Your task to perform on an android device: turn off notifications settings in the gmail app Image 0: 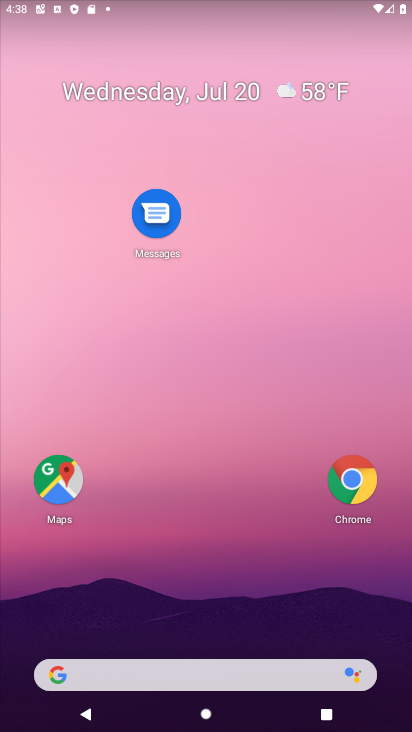
Step 0: drag from (186, 608) to (166, 208)
Your task to perform on an android device: turn off notifications settings in the gmail app Image 1: 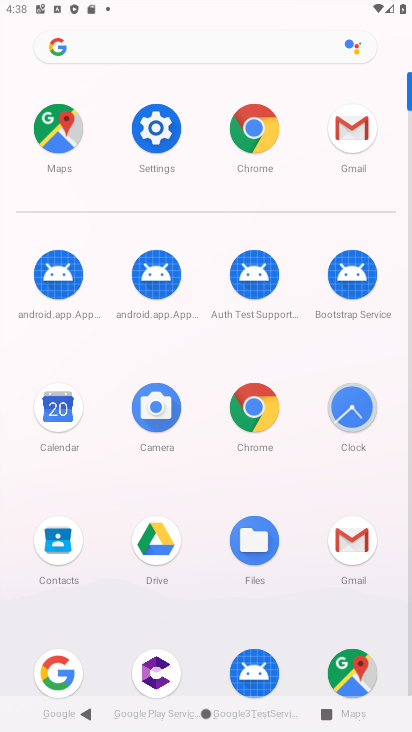
Step 1: click (352, 132)
Your task to perform on an android device: turn off notifications settings in the gmail app Image 2: 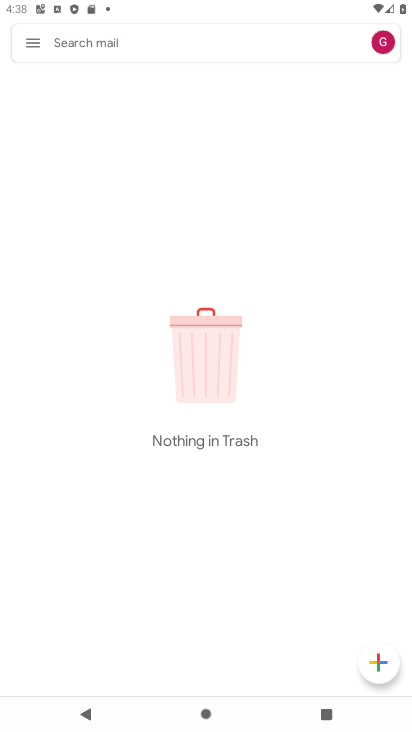
Step 2: click (34, 41)
Your task to perform on an android device: turn off notifications settings in the gmail app Image 3: 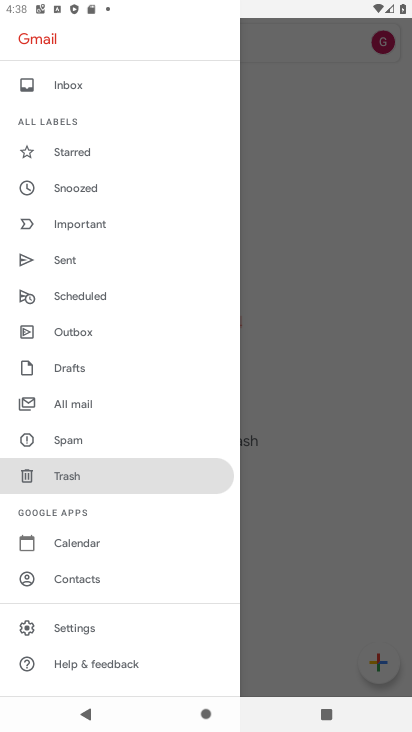
Step 3: click (73, 625)
Your task to perform on an android device: turn off notifications settings in the gmail app Image 4: 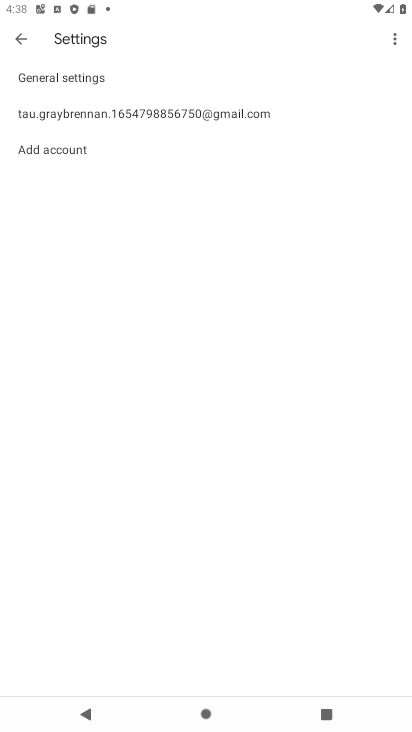
Step 4: click (106, 118)
Your task to perform on an android device: turn off notifications settings in the gmail app Image 5: 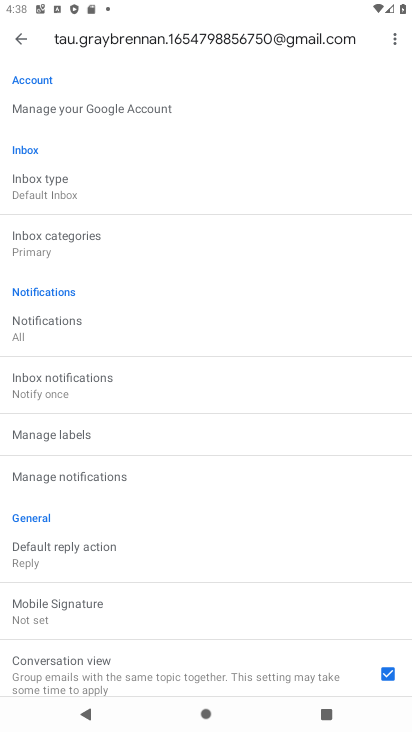
Step 5: click (90, 472)
Your task to perform on an android device: turn off notifications settings in the gmail app Image 6: 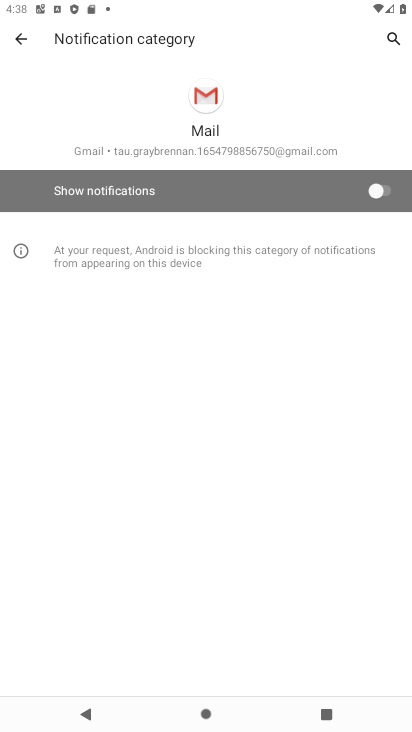
Step 6: task complete